Your task to perform on an android device: Go to internet settings Image 0: 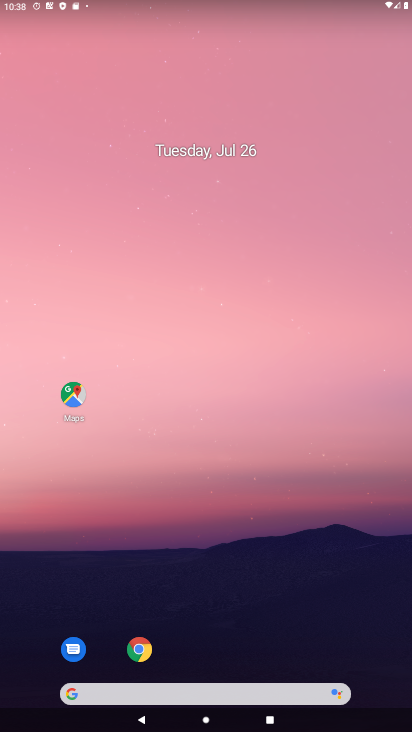
Step 0: drag from (179, 651) to (221, 265)
Your task to perform on an android device: Go to internet settings Image 1: 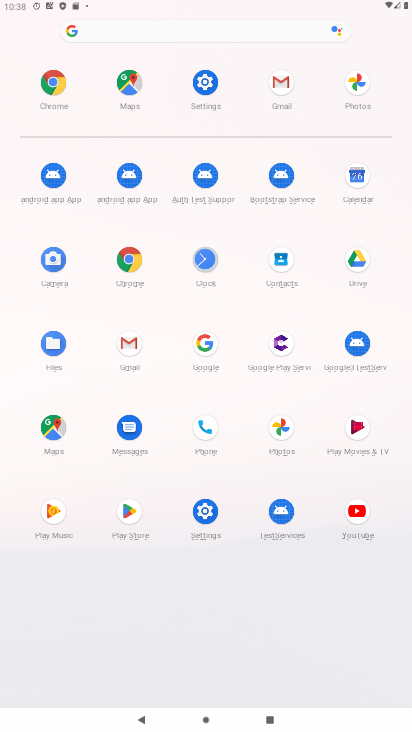
Step 1: click (206, 505)
Your task to perform on an android device: Go to internet settings Image 2: 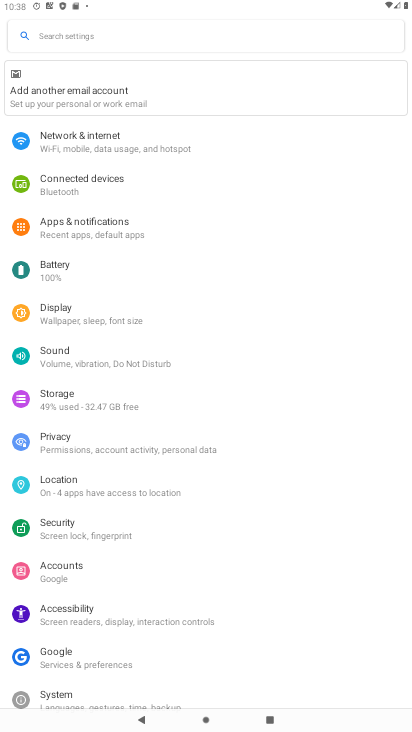
Step 2: click (97, 140)
Your task to perform on an android device: Go to internet settings Image 3: 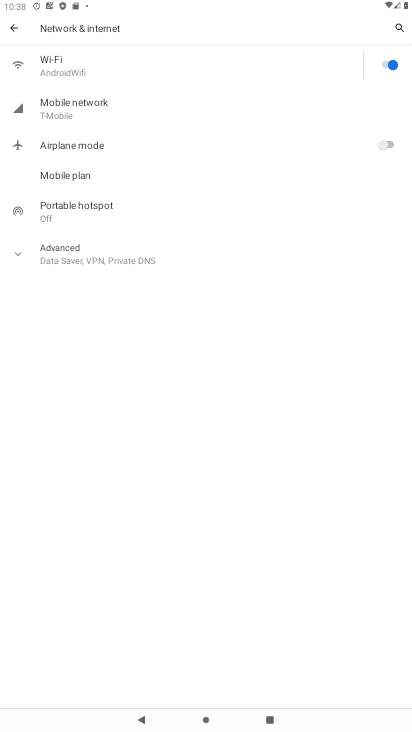
Step 3: task complete